Your task to perform on an android device: Go to privacy settings Image 0: 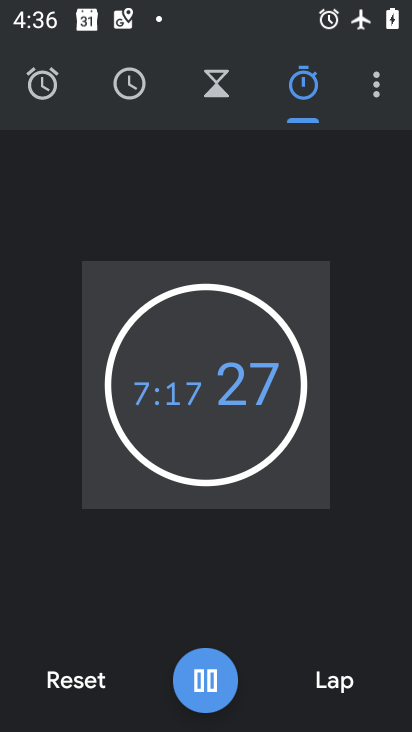
Step 0: press home button
Your task to perform on an android device: Go to privacy settings Image 1: 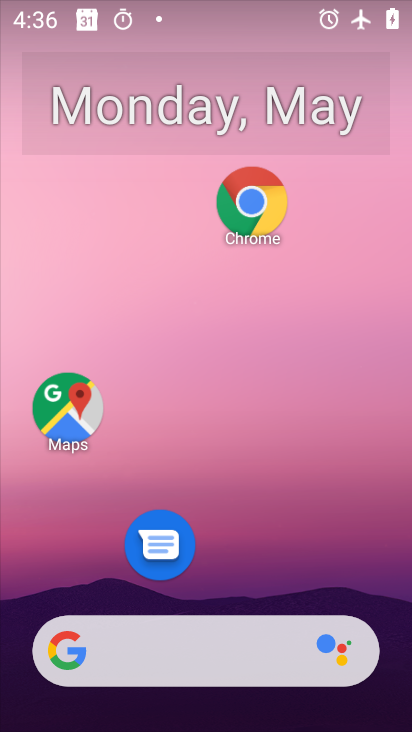
Step 1: click (246, 219)
Your task to perform on an android device: Go to privacy settings Image 2: 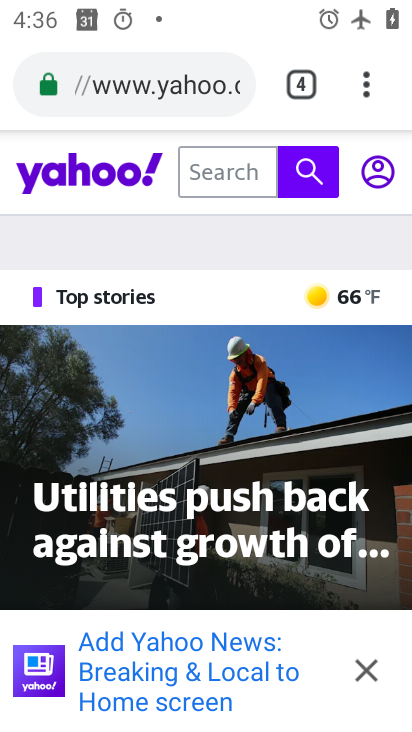
Step 2: press home button
Your task to perform on an android device: Go to privacy settings Image 3: 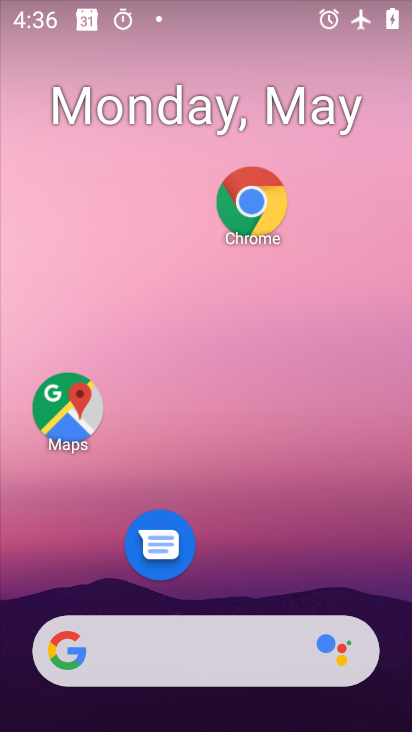
Step 3: click (305, 133)
Your task to perform on an android device: Go to privacy settings Image 4: 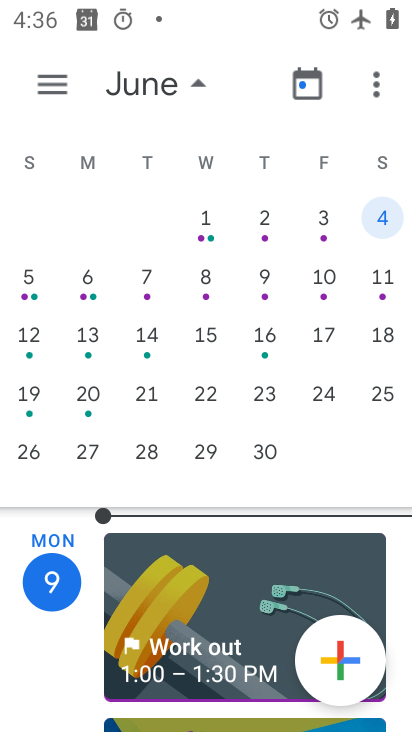
Step 4: press home button
Your task to perform on an android device: Go to privacy settings Image 5: 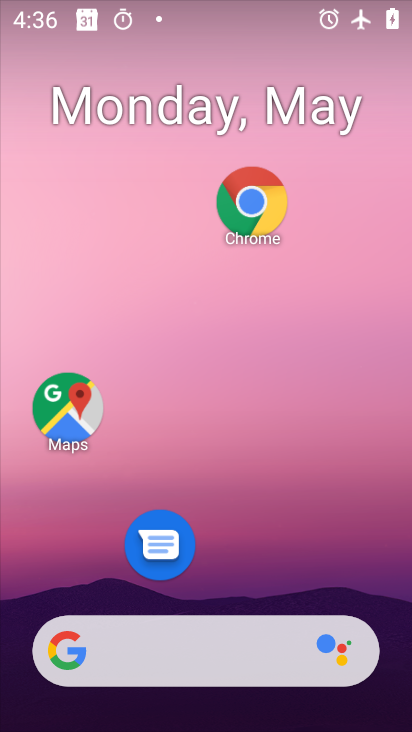
Step 5: drag from (243, 574) to (269, 157)
Your task to perform on an android device: Go to privacy settings Image 6: 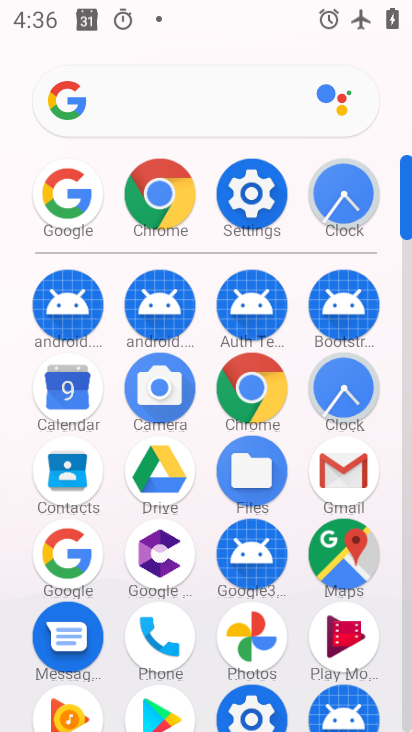
Step 6: click (242, 177)
Your task to perform on an android device: Go to privacy settings Image 7: 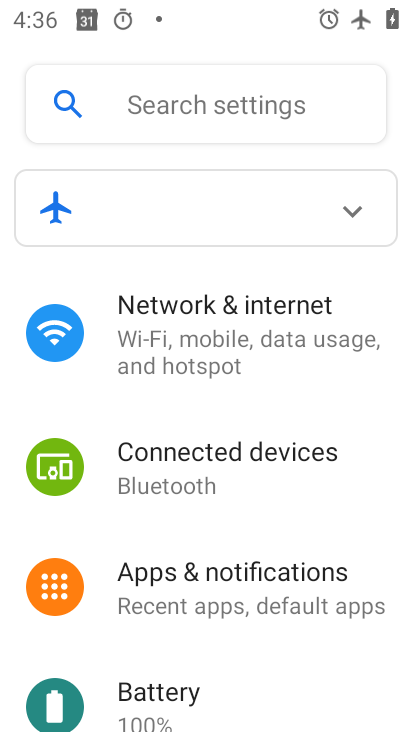
Step 7: drag from (191, 585) to (252, 276)
Your task to perform on an android device: Go to privacy settings Image 8: 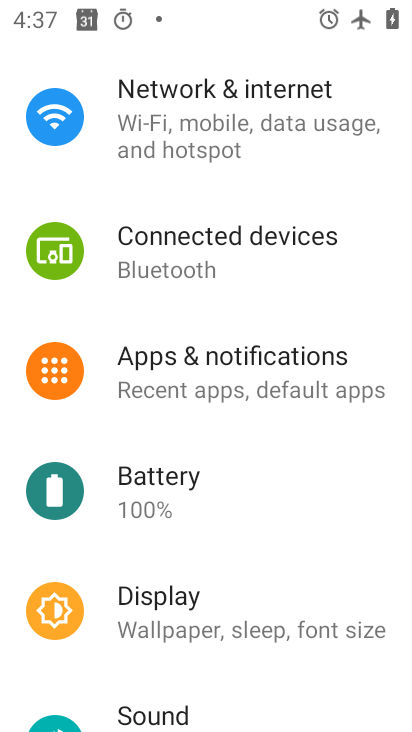
Step 8: drag from (223, 534) to (258, 332)
Your task to perform on an android device: Go to privacy settings Image 9: 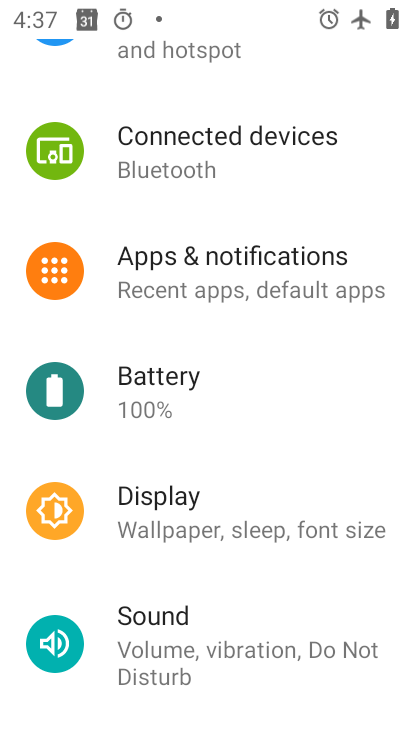
Step 9: drag from (239, 553) to (266, 301)
Your task to perform on an android device: Go to privacy settings Image 10: 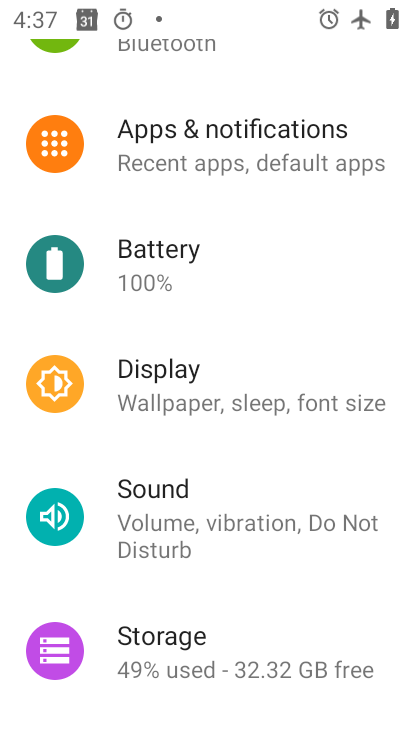
Step 10: drag from (231, 573) to (270, 355)
Your task to perform on an android device: Go to privacy settings Image 11: 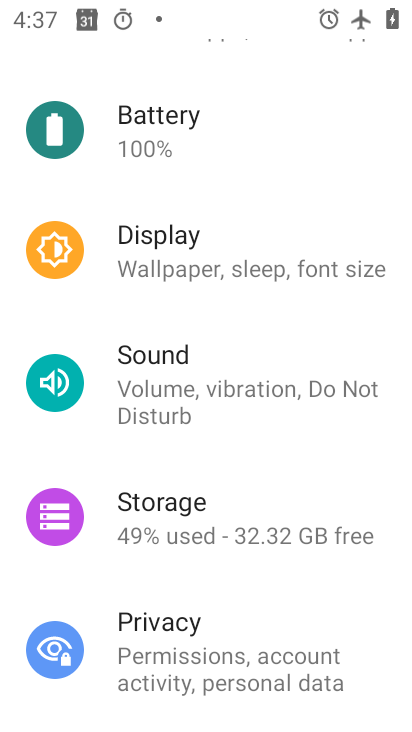
Step 11: click (130, 631)
Your task to perform on an android device: Go to privacy settings Image 12: 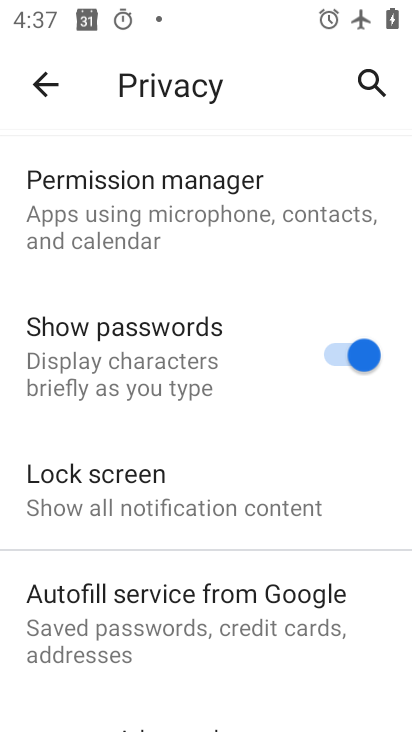
Step 12: task complete